Your task to perform on an android device: Open settings on Google Maps Image 0: 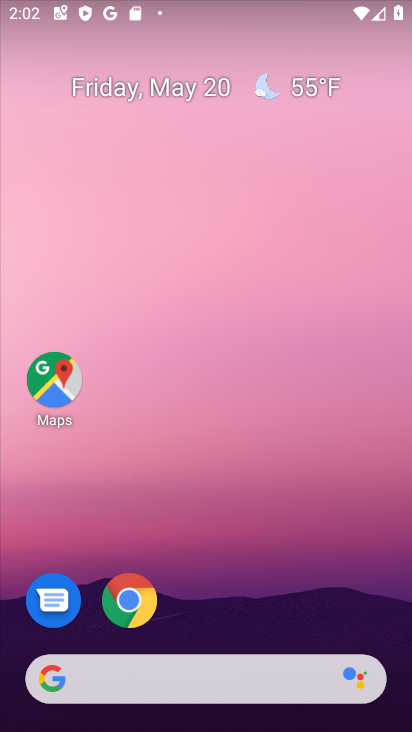
Step 0: drag from (243, 686) to (250, 120)
Your task to perform on an android device: Open settings on Google Maps Image 1: 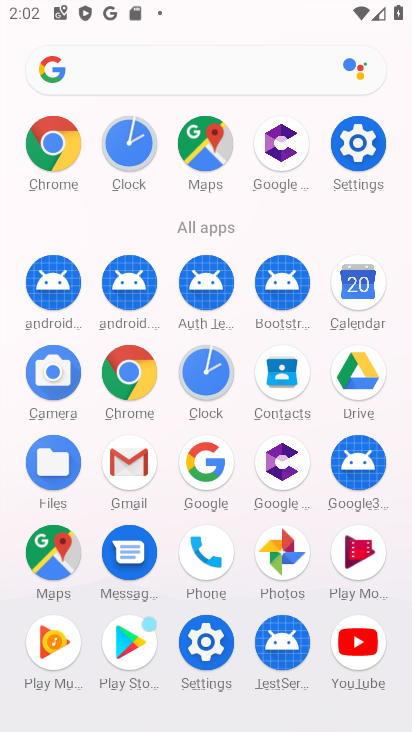
Step 1: click (67, 577)
Your task to perform on an android device: Open settings on Google Maps Image 2: 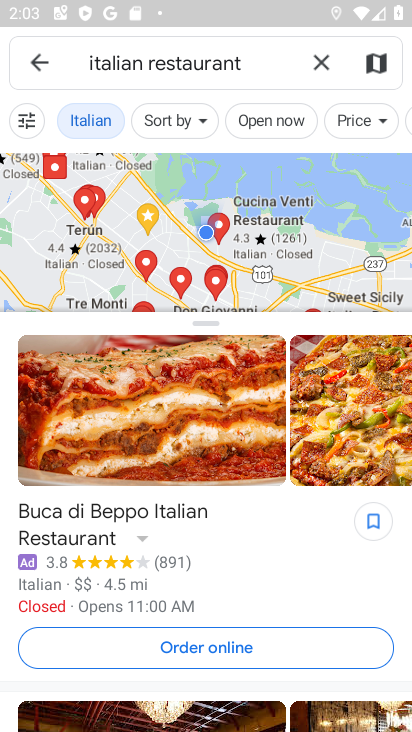
Step 2: click (34, 70)
Your task to perform on an android device: Open settings on Google Maps Image 3: 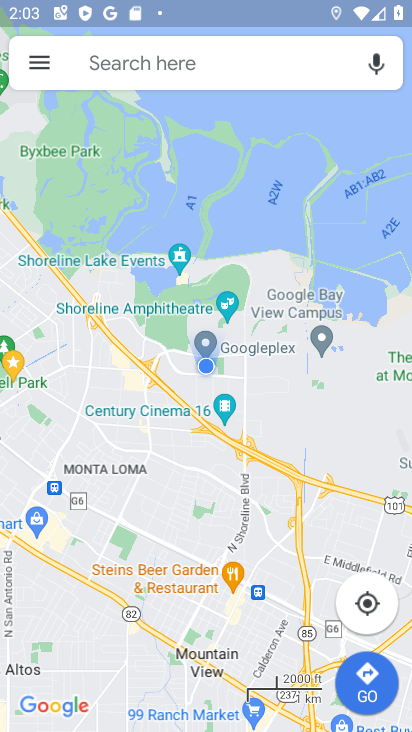
Step 3: click (34, 71)
Your task to perform on an android device: Open settings on Google Maps Image 4: 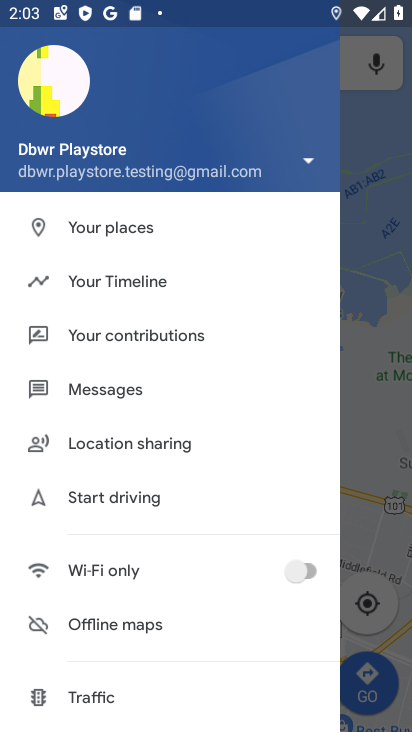
Step 4: drag from (114, 583) to (107, 175)
Your task to perform on an android device: Open settings on Google Maps Image 5: 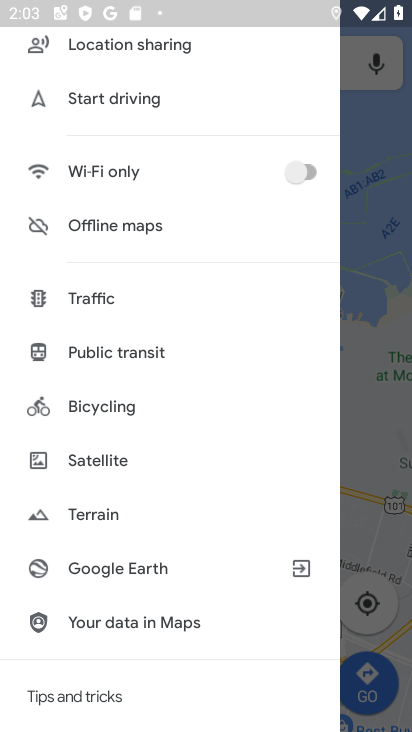
Step 5: drag from (109, 598) to (107, 199)
Your task to perform on an android device: Open settings on Google Maps Image 6: 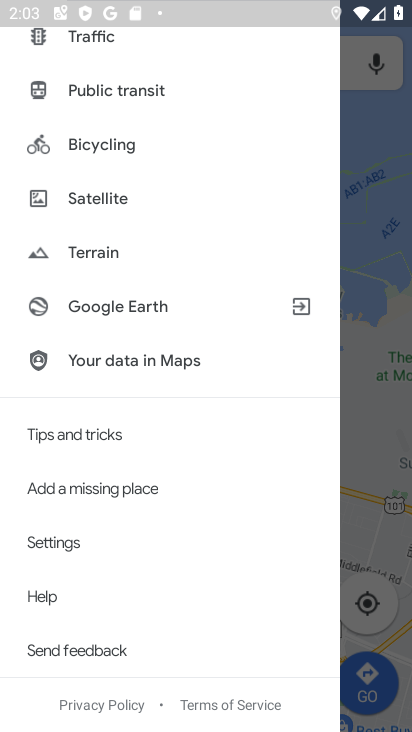
Step 6: click (109, 552)
Your task to perform on an android device: Open settings on Google Maps Image 7: 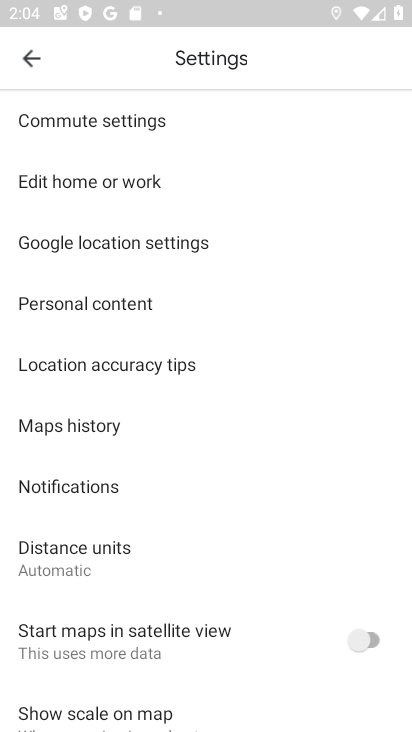
Step 7: click (90, 565)
Your task to perform on an android device: Open settings on Google Maps Image 8: 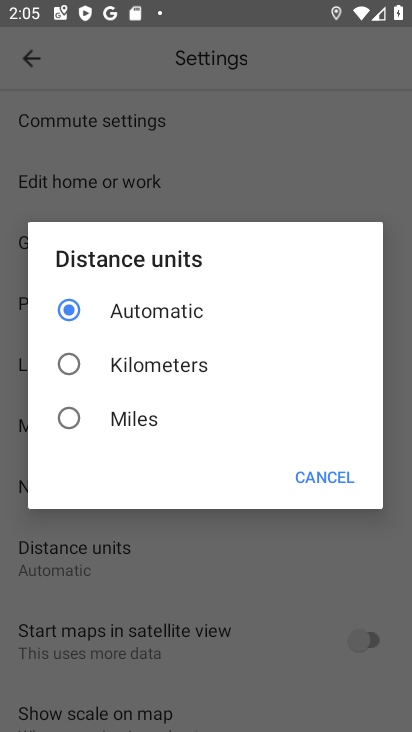
Step 8: click (328, 479)
Your task to perform on an android device: Open settings on Google Maps Image 9: 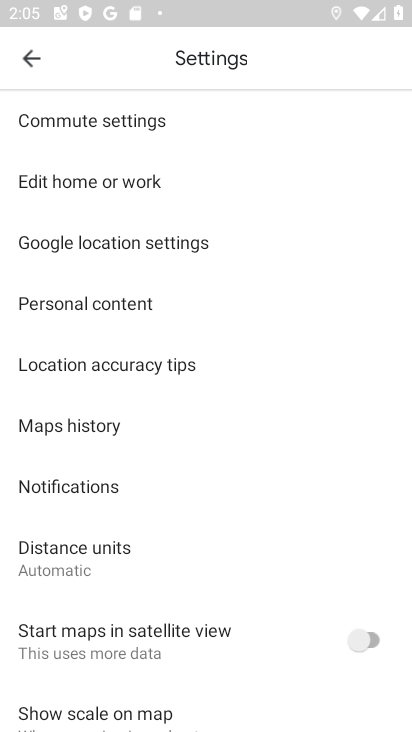
Step 9: task complete